Your task to perform on an android device: Open Chrome and go to the settings page Image 0: 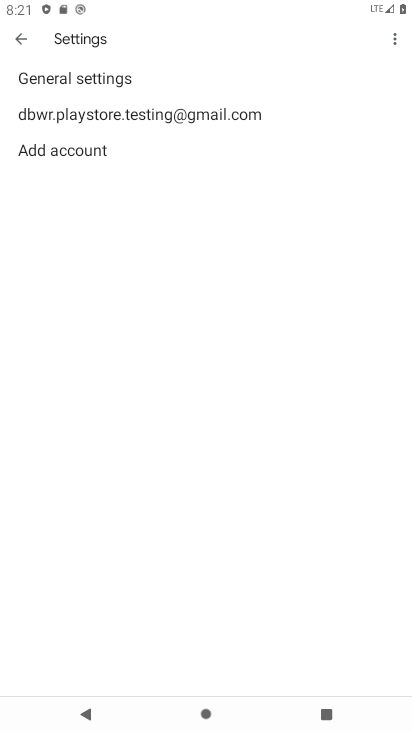
Step 0: press home button
Your task to perform on an android device: Open Chrome and go to the settings page Image 1: 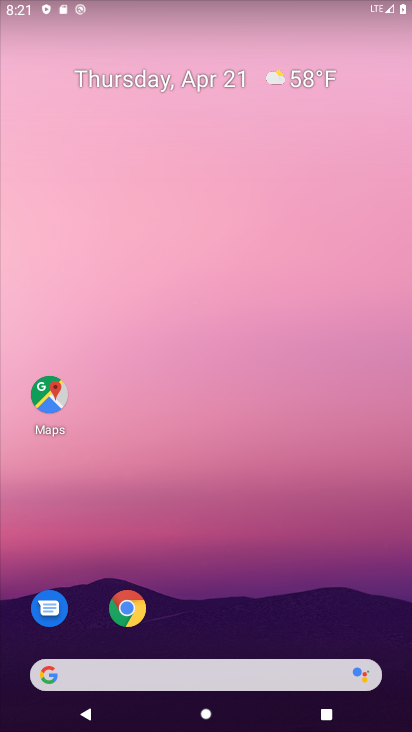
Step 1: click (131, 616)
Your task to perform on an android device: Open Chrome and go to the settings page Image 2: 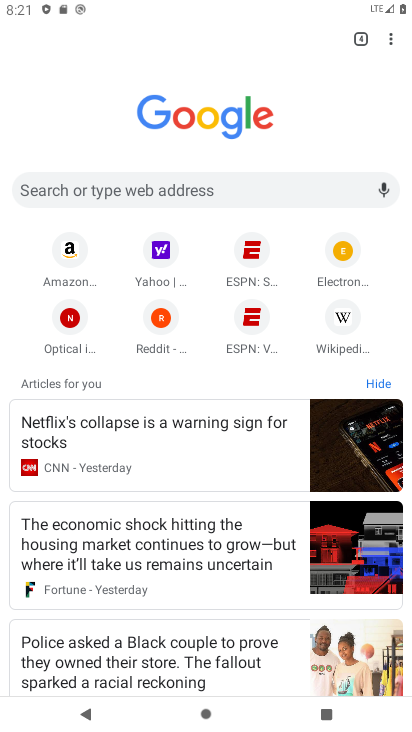
Step 2: click (389, 40)
Your task to perform on an android device: Open Chrome and go to the settings page Image 3: 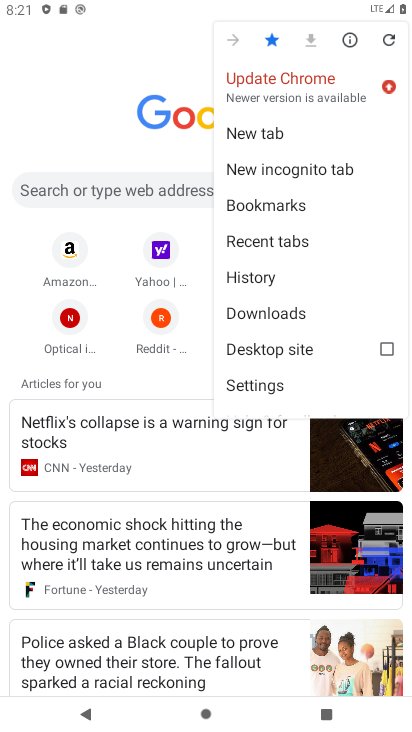
Step 3: click (296, 388)
Your task to perform on an android device: Open Chrome and go to the settings page Image 4: 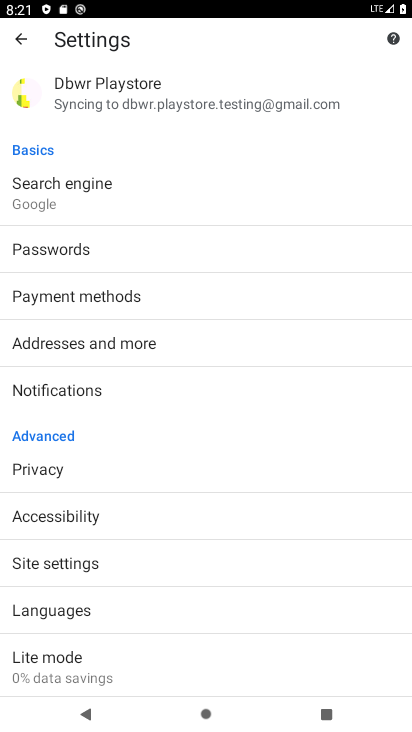
Step 4: task complete